Your task to perform on an android device: delete browsing data in the chrome app Image 0: 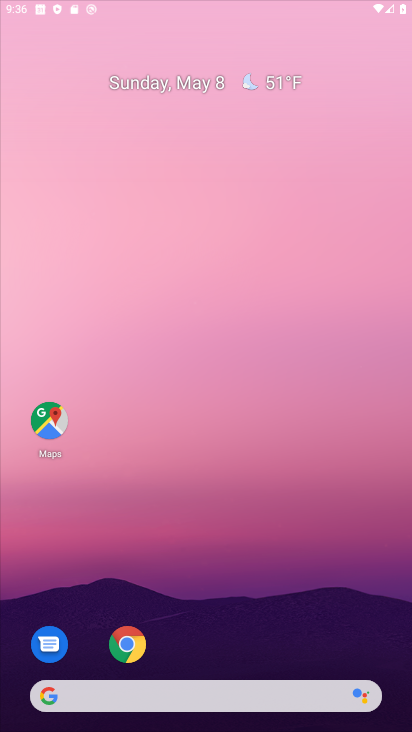
Step 0: click (275, 95)
Your task to perform on an android device: delete browsing data in the chrome app Image 1: 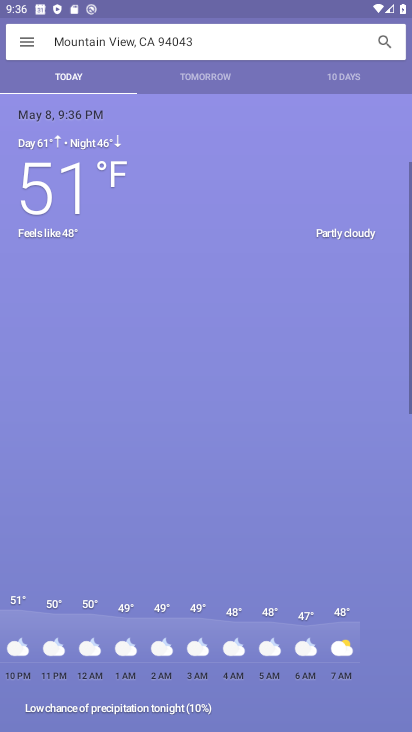
Step 1: drag from (198, 651) to (276, 45)
Your task to perform on an android device: delete browsing data in the chrome app Image 2: 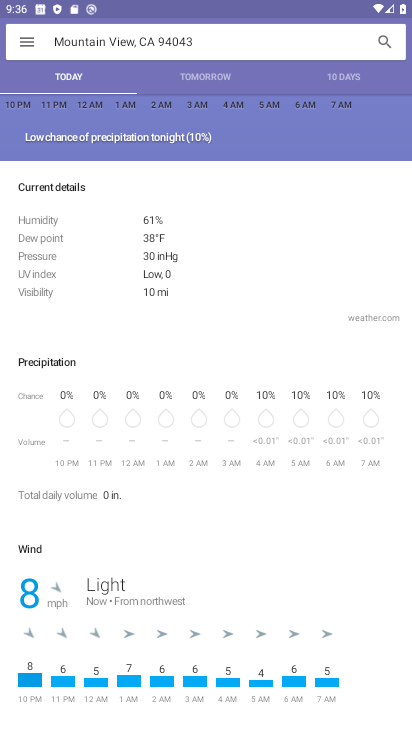
Step 2: press home button
Your task to perform on an android device: delete browsing data in the chrome app Image 3: 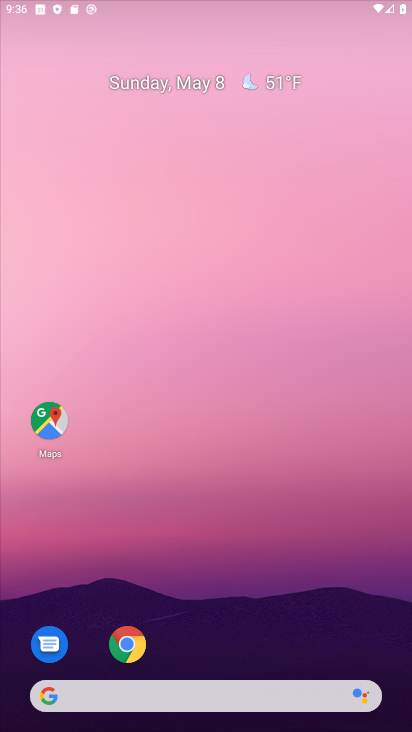
Step 3: drag from (179, 637) to (201, 175)
Your task to perform on an android device: delete browsing data in the chrome app Image 4: 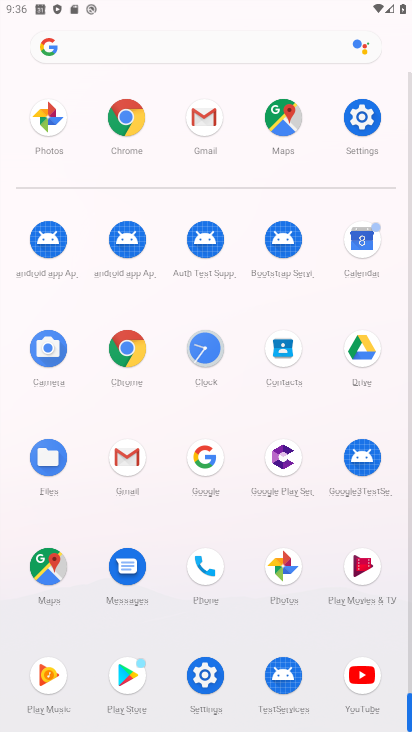
Step 4: click (126, 355)
Your task to perform on an android device: delete browsing data in the chrome app Image 5: 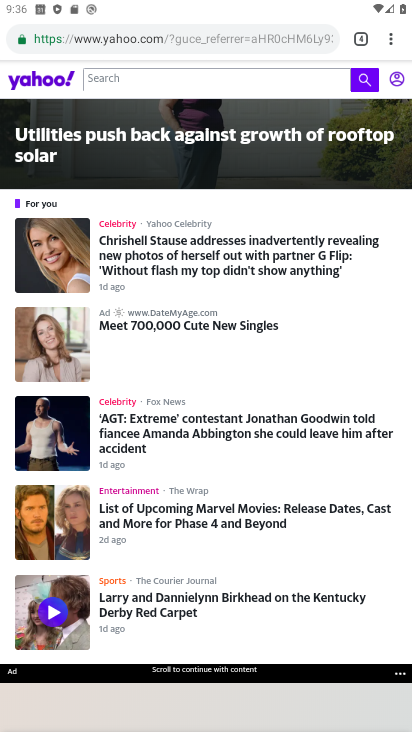
Step 5: drag from (394, 41) to (265, 264)
Your task to perform on an android device: delete browsing data in the chrome app Image 6: 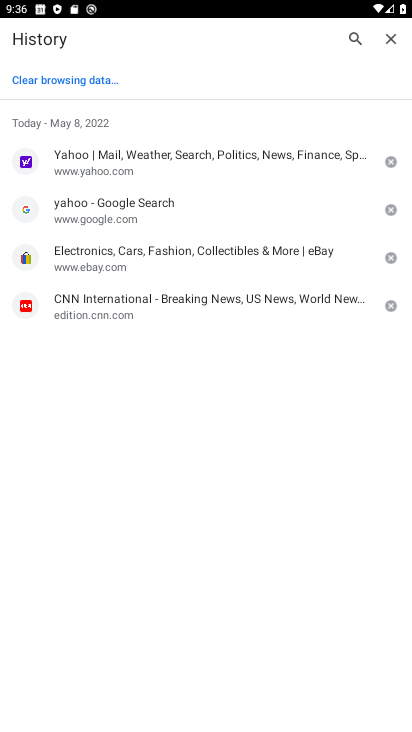
Step 6: click (50, 81)
Your task to perform on an android device: delete browsing data in the chrome app Image 7: 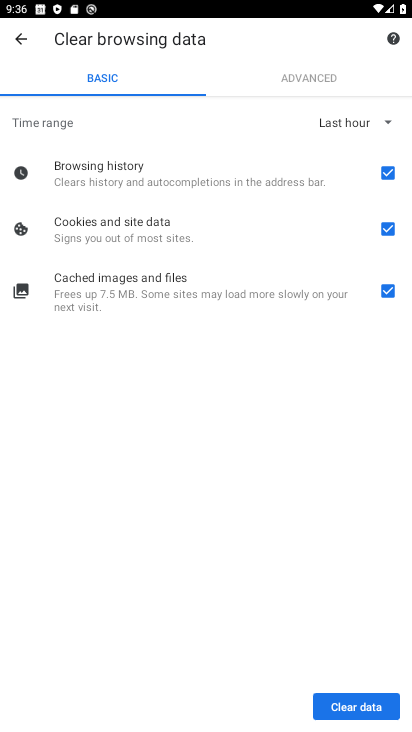
Step 7: click (350, 709)
Your task to perform on an android device: delete browsing data in the chrome app Image 8: 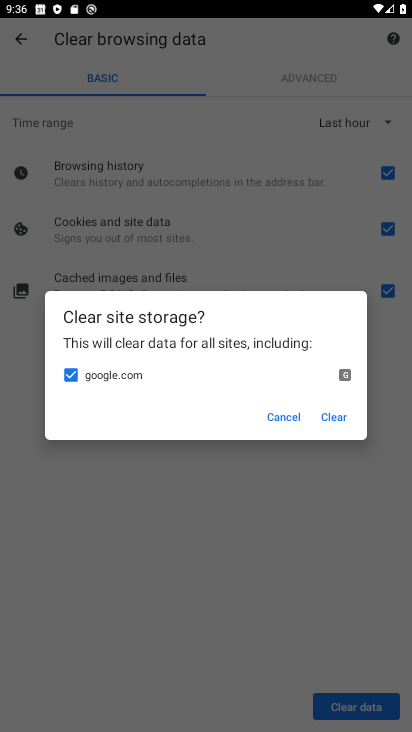
Step 8: click (324, 421)
Your task to perform on an android device: delete browsing data in the chrome app Image 9: 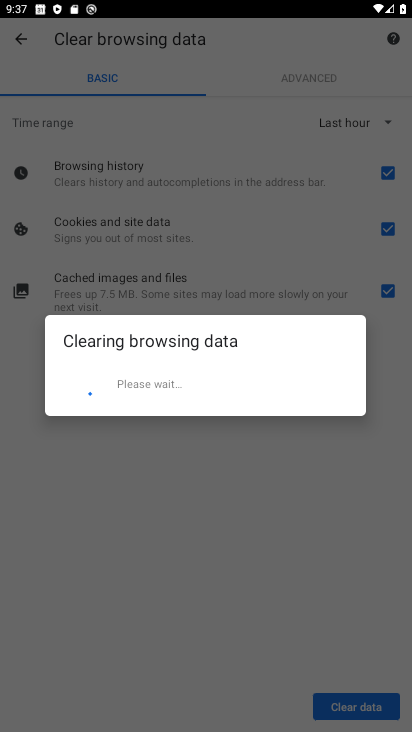
Step 9: task complete